Your task to perform on an android device: Open eBay Image 0: 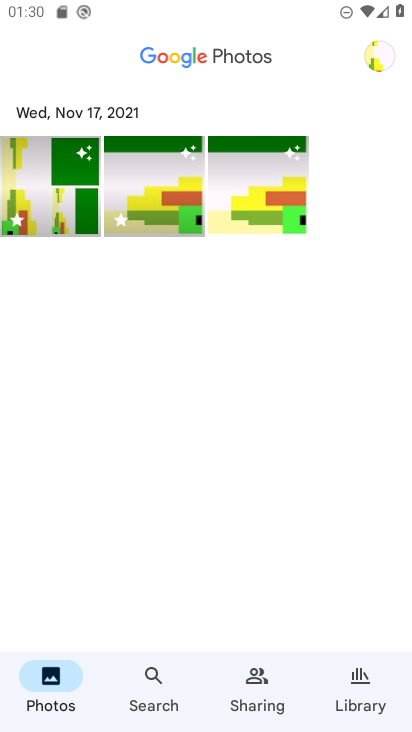
Step 0: press back button
Your task to perform on an android device: Open eBay Image 1: 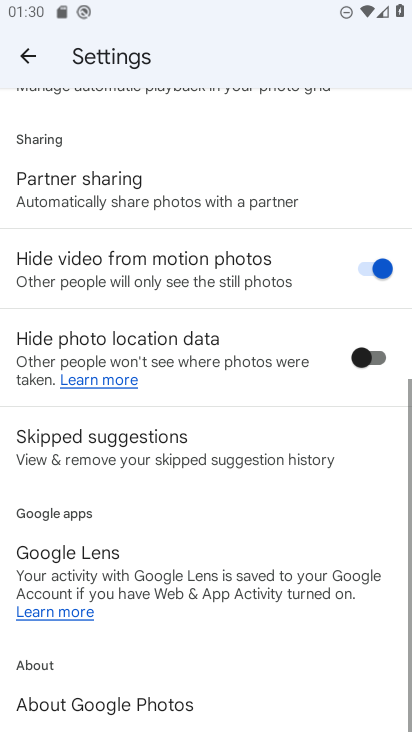
Step 1: press back button
Your task to perform on an android device: Open eBay Image 2: 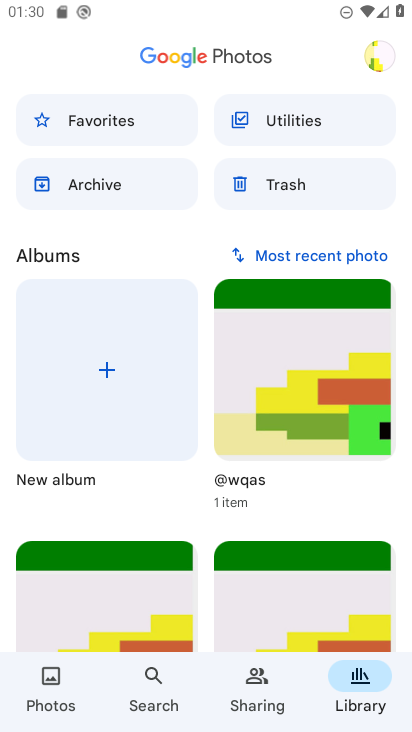
Step 2: press back button
Your task to perform on an android device: Open eBay Image 3: 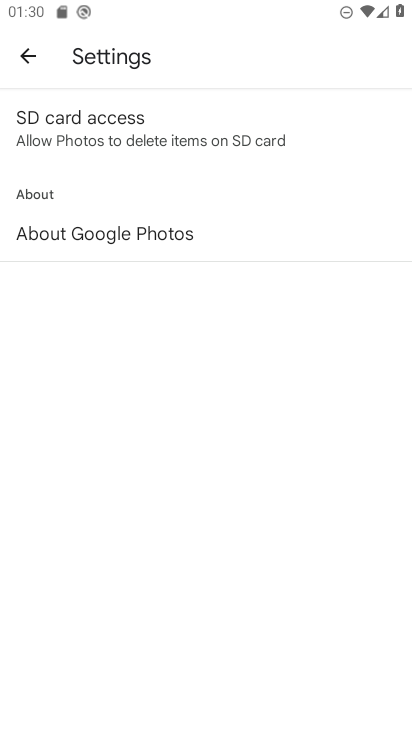
Step 3: press back button
Your task to perform on an android device: Open eBay Image 4: 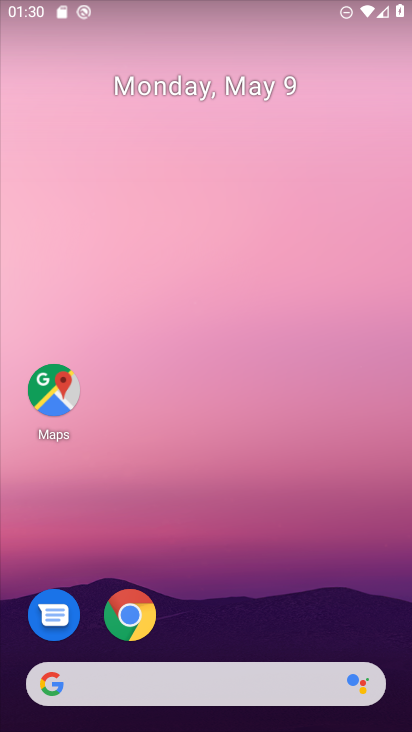
Step 4: drag from (232, 595) to (164, 26)
Your task to perform on an android device: Open eBay Image 5: 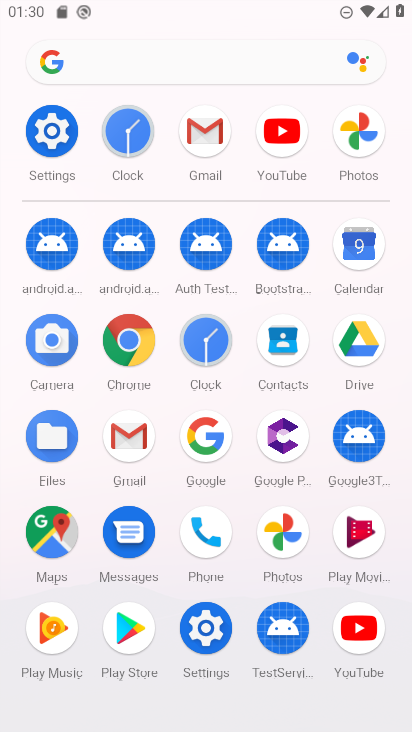
Step 5: click (204, 432)
Your task to perform on an android device: Open eBay Image 6: 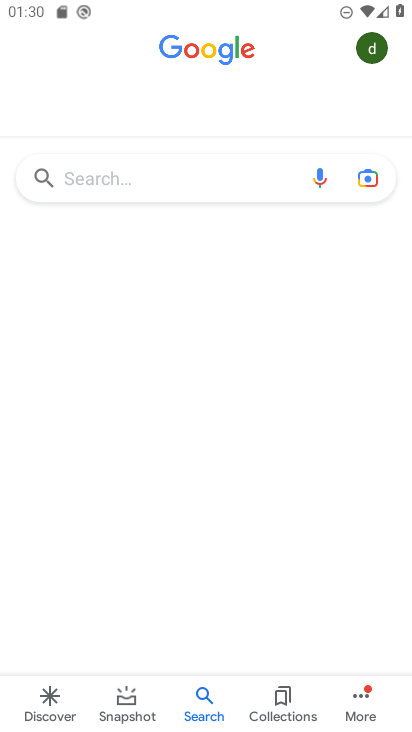
Step 6: click (170, 172)
Your task to perform on an android device: Open eBay Image 7: 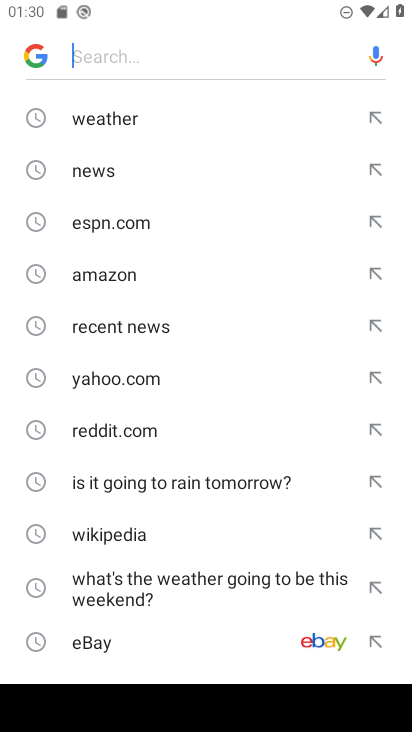
Step 7: click (96, 636)
Your task to perform on an android device: Open eBay Image 8: 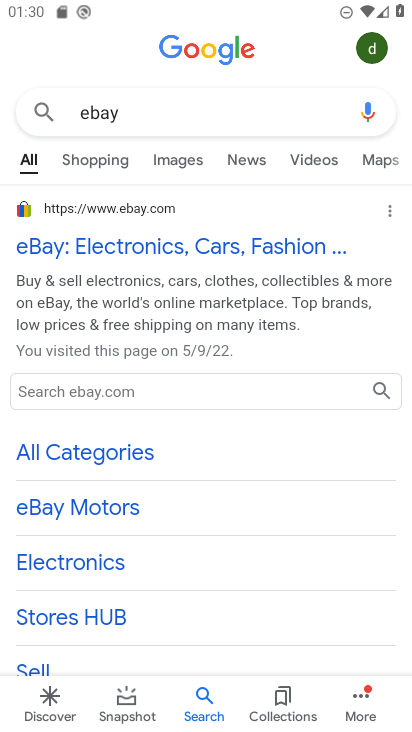
Step 8: click (55, 248)
Your task to perform on an android device: Open eBay Image 9: 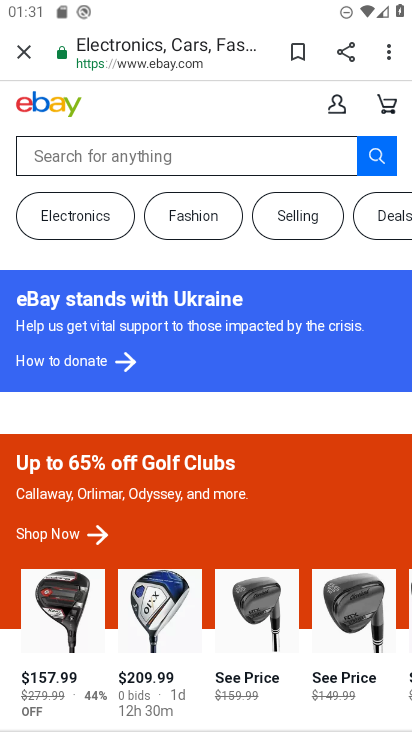
Step 9: task complete